Your task to perform on an android device: Open Google Image 0: 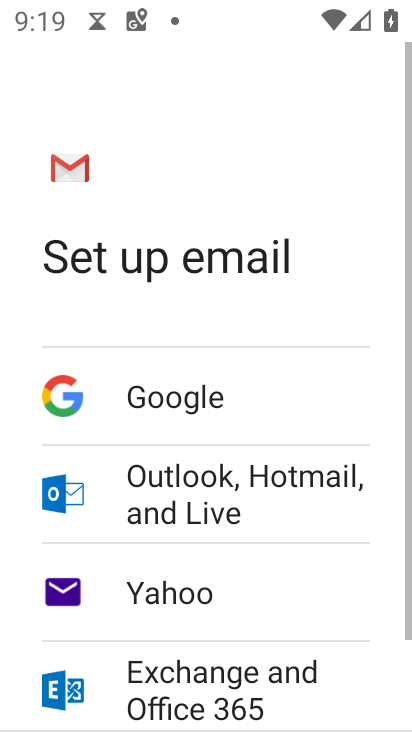
Step 0: press back button
Your task to perform on an android device: Open Google Image 1: 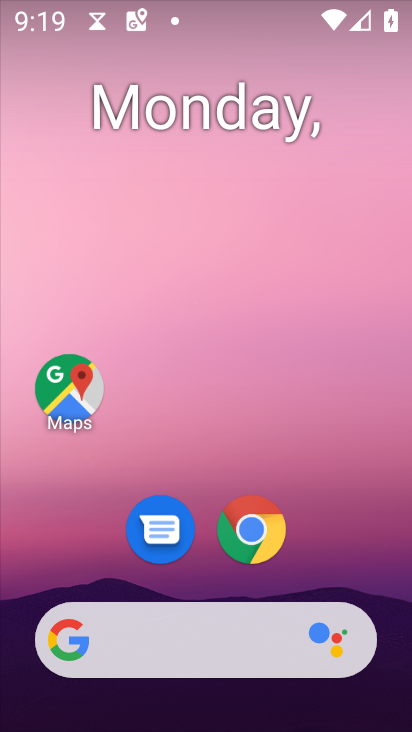
Step 1: drag from (267, 715) to (112, 68)
Your task to perform on an android device: Open Google Image 2: 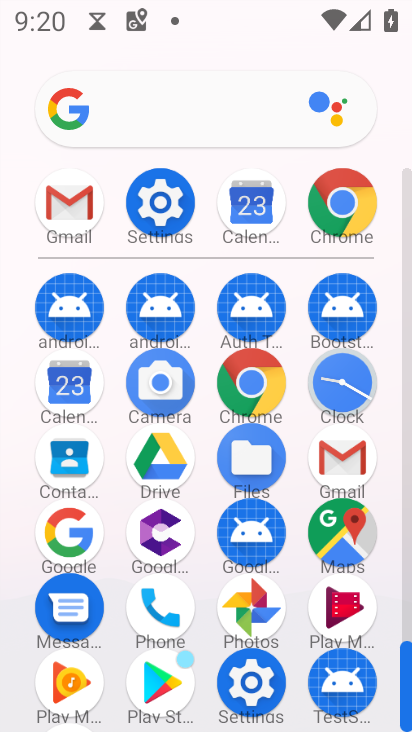
Step 2: click (68, 543)
Your task to perform on an android device: Open Google Image 3: 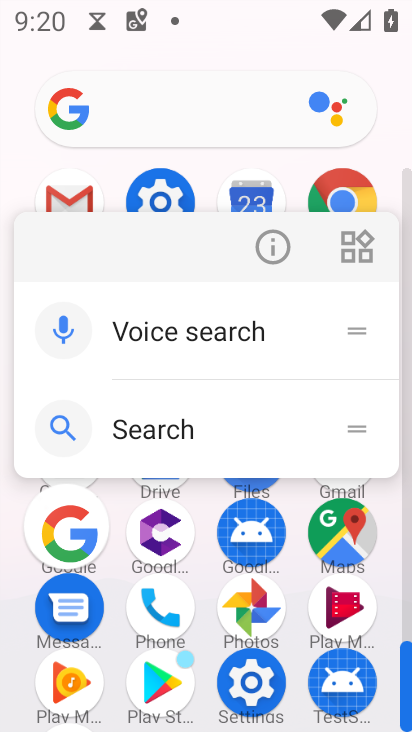
Step 3: click (68, 532)
Your task to perform on an android device: Open Google Image 4: 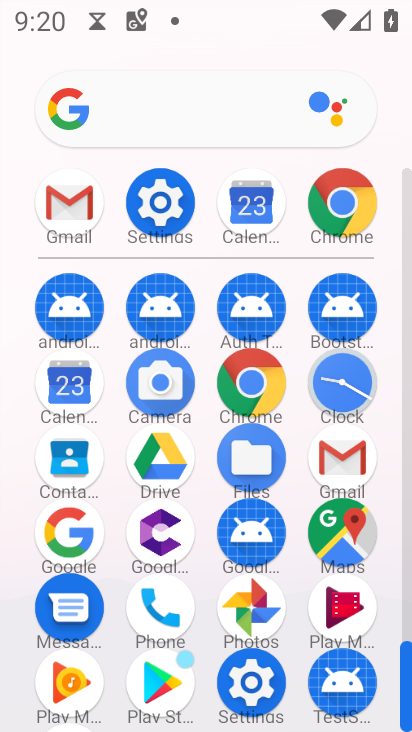
Step 4: click (77, 518)
Your task to perform on an android device: Open Google Image 5: 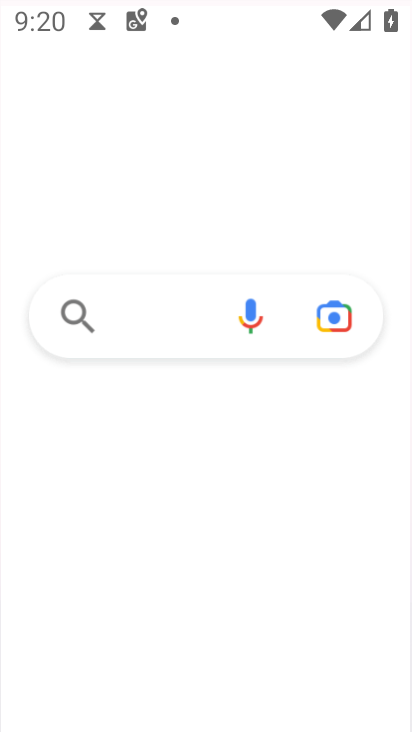
Step 5: click (77, 518)
Your task to perform on an android device: Open Google Image 6: 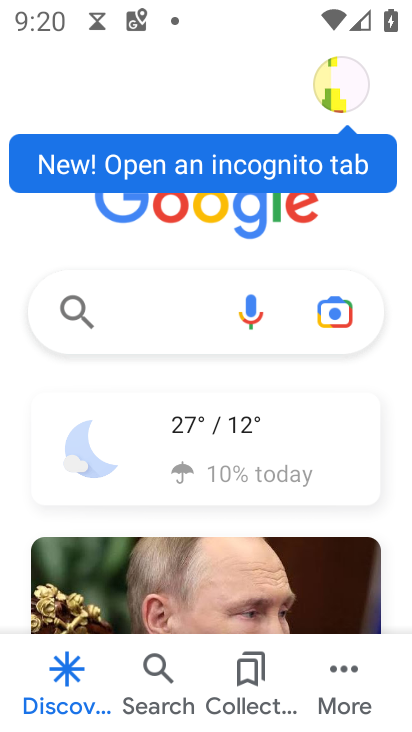
Step 6: task complete